Your task to perform on an android device: change the clock display to show seconds Image 0: 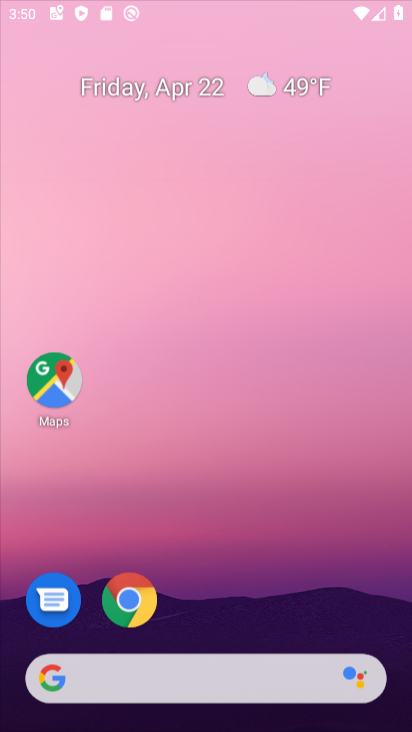
Step 0: click (325, 77)
Your task to perform on an android device: change the clock display to show seconds Image 1: 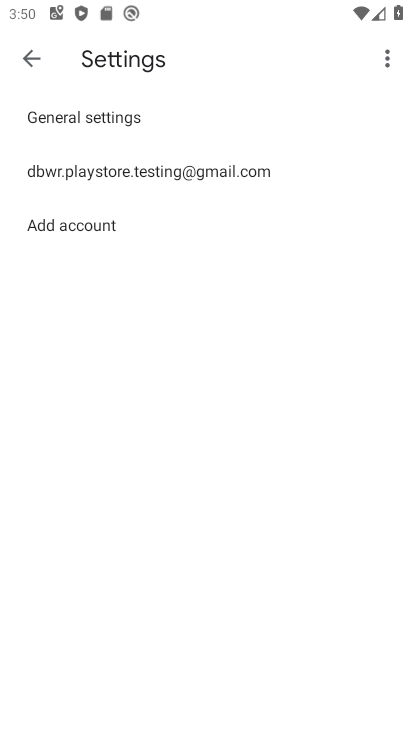
Step 1: press home button
Your task to perform on an android device: change the clock display to show seconds Image 2: 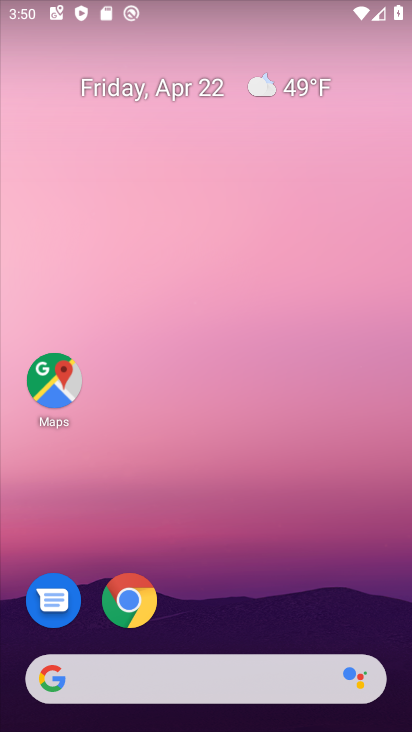
Step 2: drag from (222, 633) to (304, 99)
Your task to perform on an android device: change the clock display to show seconds Image 3: 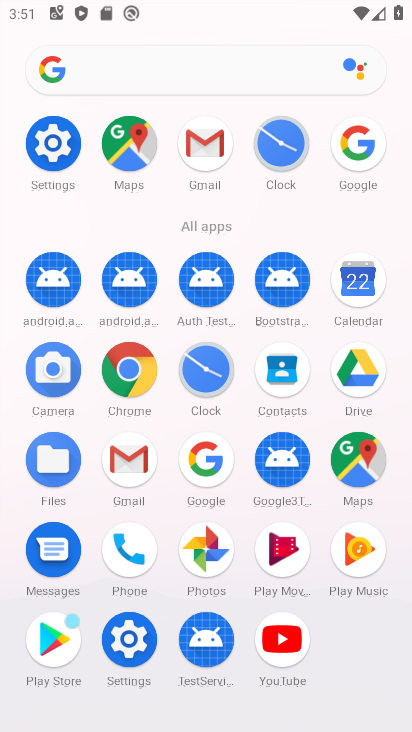
Step 3: click (211, 367)
Your task to perform on an android device: change the clock display to show seconds Image 4: 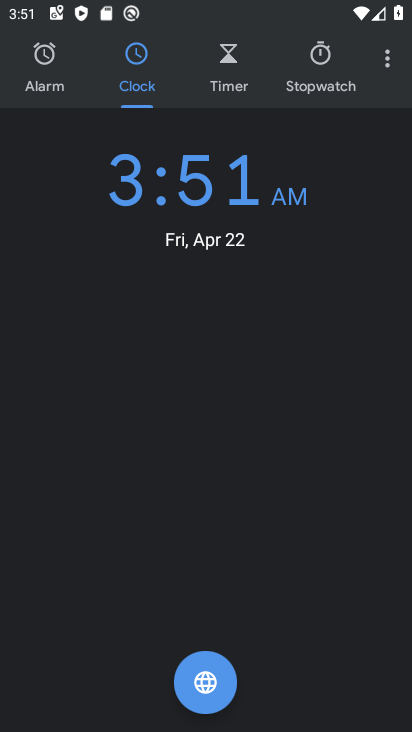
Step 4: click (396, 54)
Your task to perform on an android device: change the clock display to show seconds Image 5: 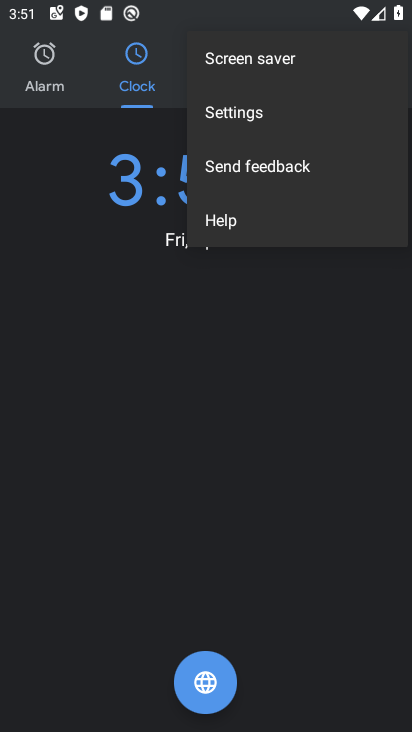
Step 5: click (319, 128)
Your task to perform on an android device: change the clock display to show seconds Image 6: 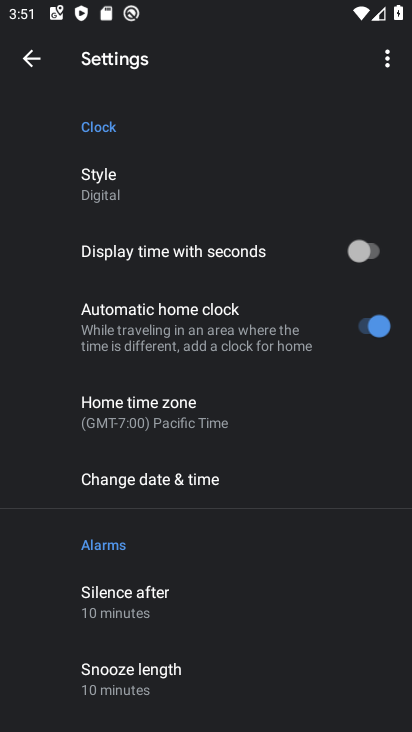
Step 6: click (380, 245)
Your task to perform on an android device: change the clock display to show seconds Image 7: 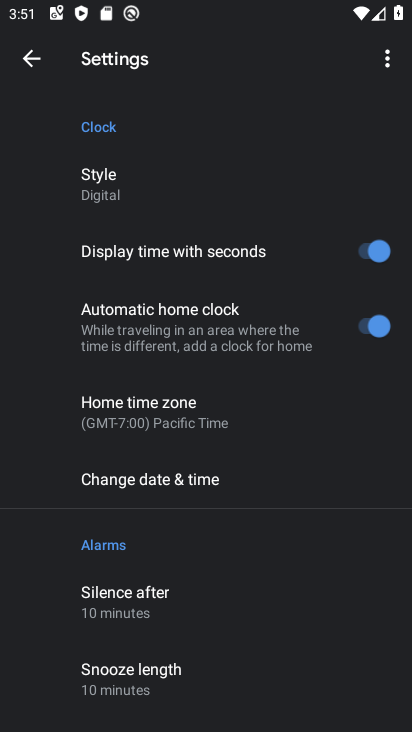
Step 7: task complete